Your task to perform on an android device: toggle notification dots Image 0: 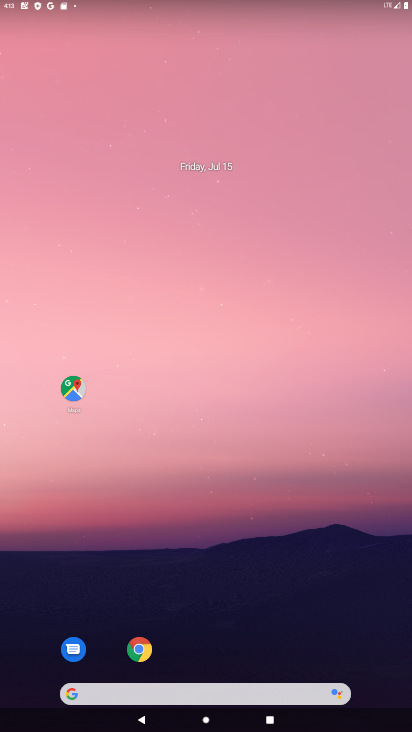
Step 0: drag from (214, 653) to (166, 81)
Your task to perform on an android device: toggle notification dots Image 1: 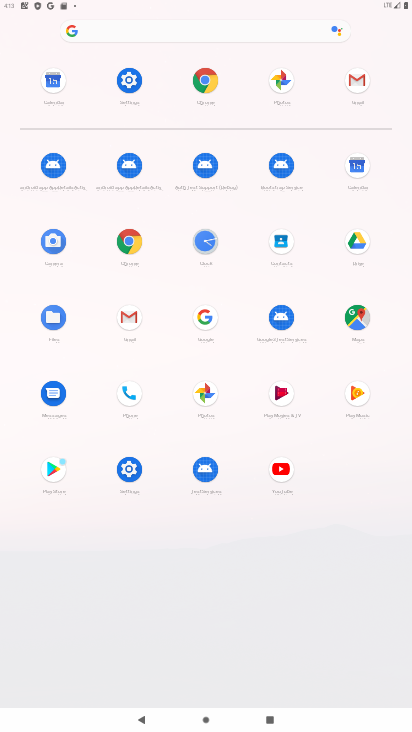
Step 1: click (142, 95)
Your task to perform on an android device: toggle notification dots Image 2: 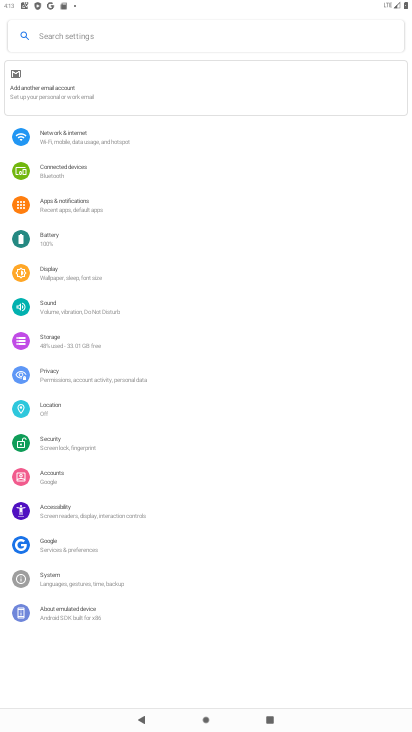
Step 2: click (92, 203)
Your task to perform on an android device: toggle notification dots Image 3: 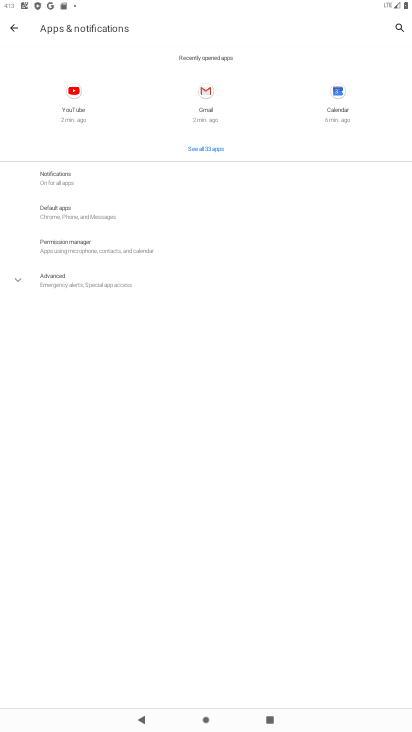
Step 3: click (58, 179)
Your task to perform on an android device: toggle notification dots Image 4: 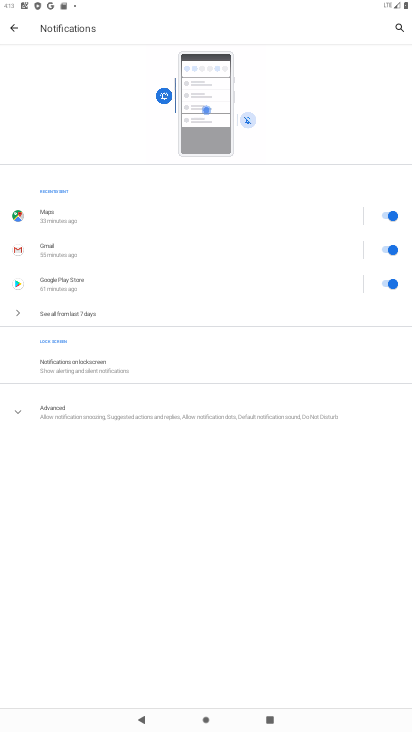
Step 4: click (195, 420)
Your task to perform on an android device: toggle notification dots Image 5: 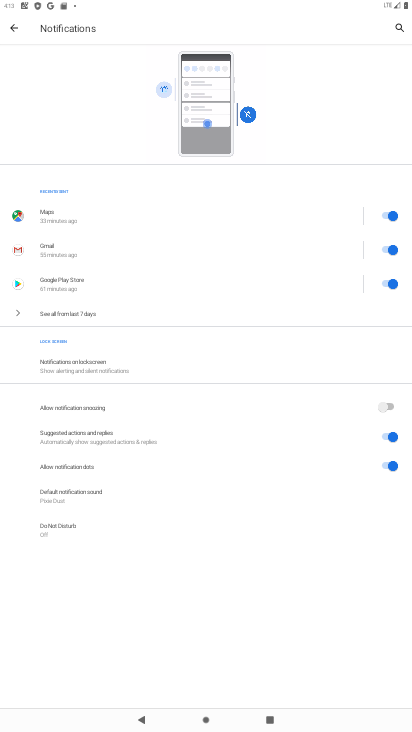
Step 5: click (390, 469)
Your task to perform on an android device: toggle notification dots Image 6: 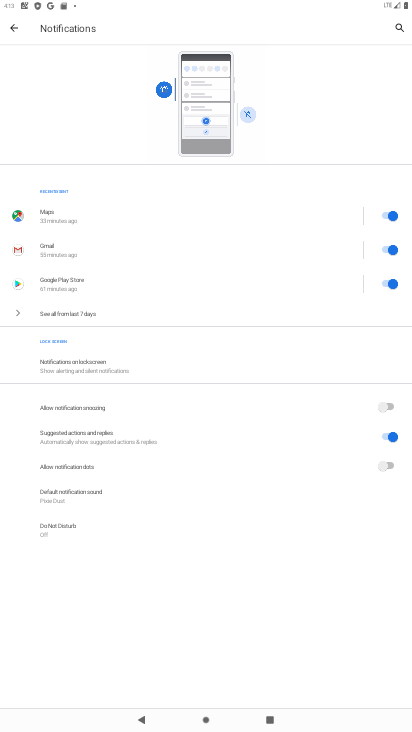
Step 6: task complete